Your task to perform on an android device: Open Chrome and go to settings Image 0: 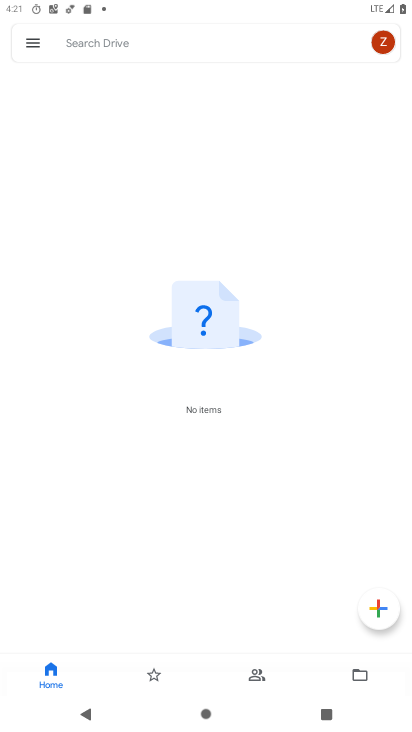
Step 0: press home button
Your task to perform on an android device: Open Chrome and go to settings Image 1: 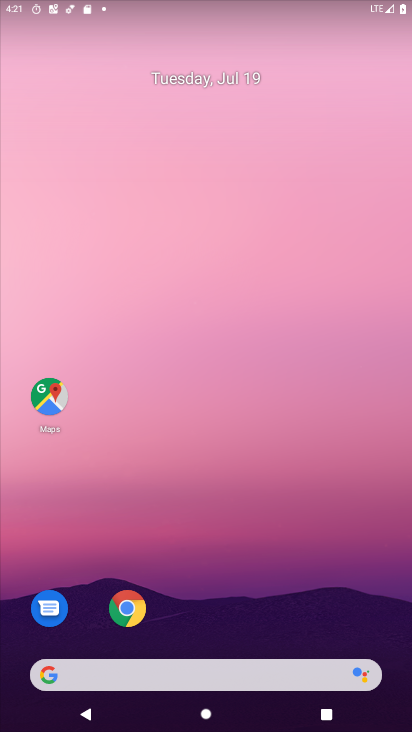
Step 1: click (127, 608)
Your task to perform on an android device: Open Chrome and go to settings Image 2: 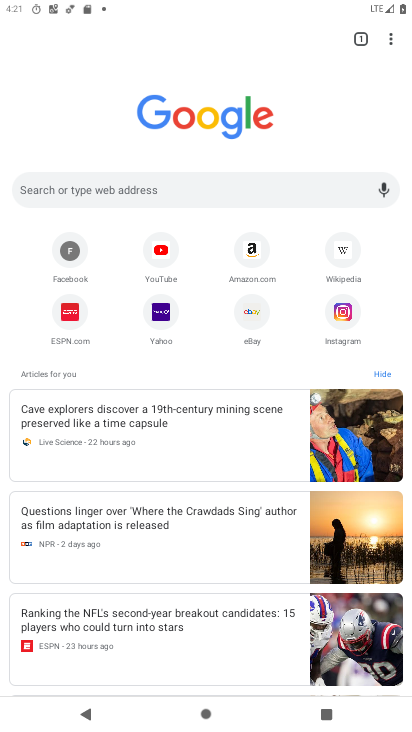
Step 2: click (391, 37)
Your task to perform on an android device: Open Chrome and go to settings Image 3: 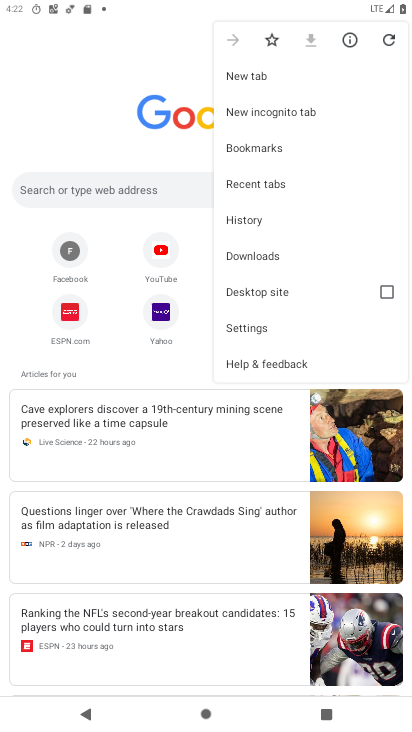
Step 3: click (259, 329)
Your task to perform on an android device: Open Chrome and go to settings Image 4: 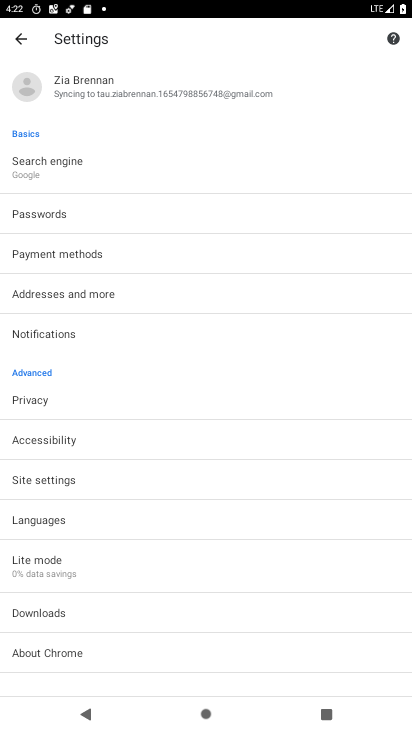
Step 4: task complete